Your task to perform on an android device: Show me recent news Image 0: 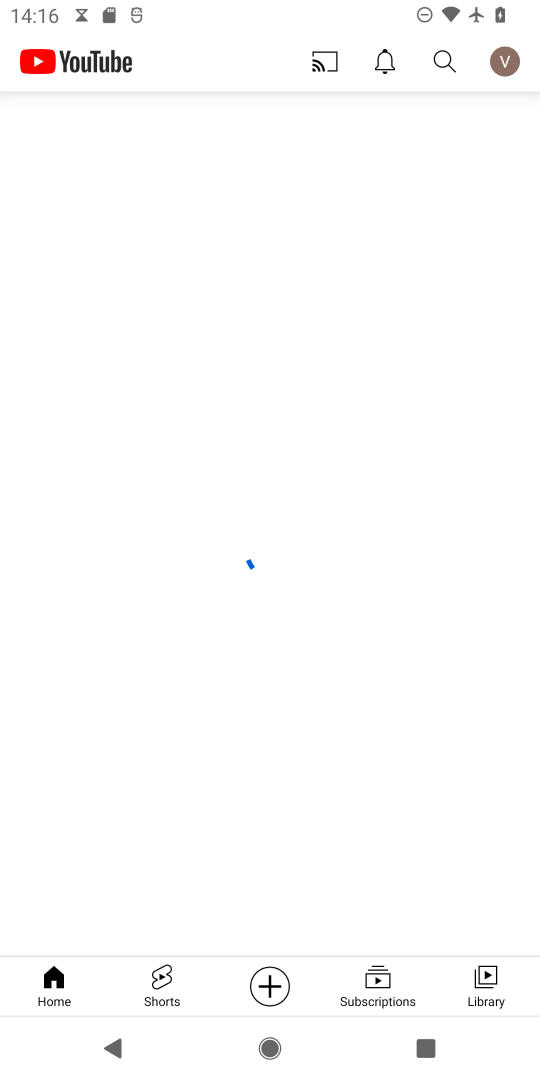
Step 0: press home button
Your task to perform on an android device: Show me recent news Image 1: 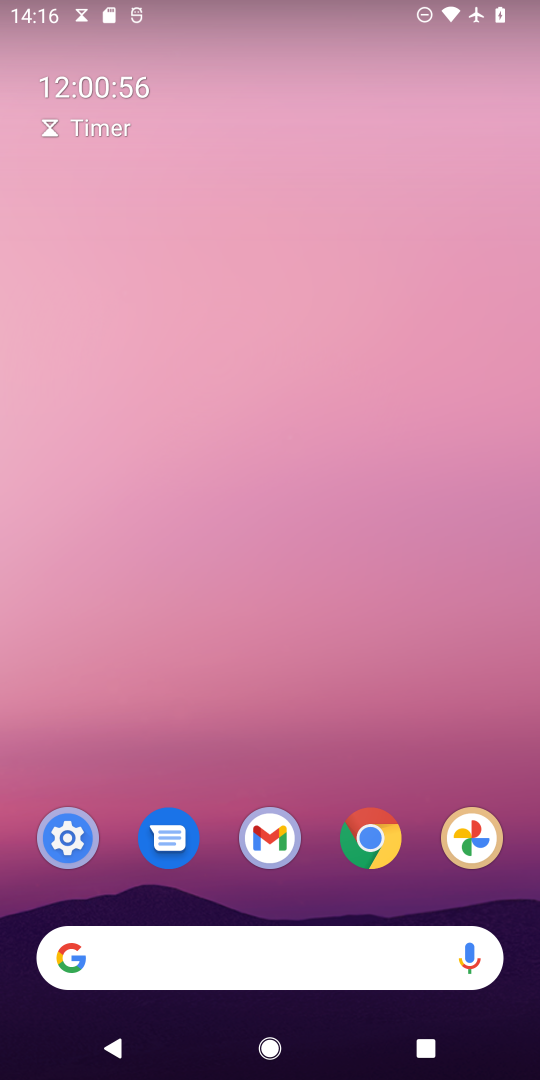
Step 1: click (60, 960)
Your task to perform on an android device: Show me recent news Image 2: 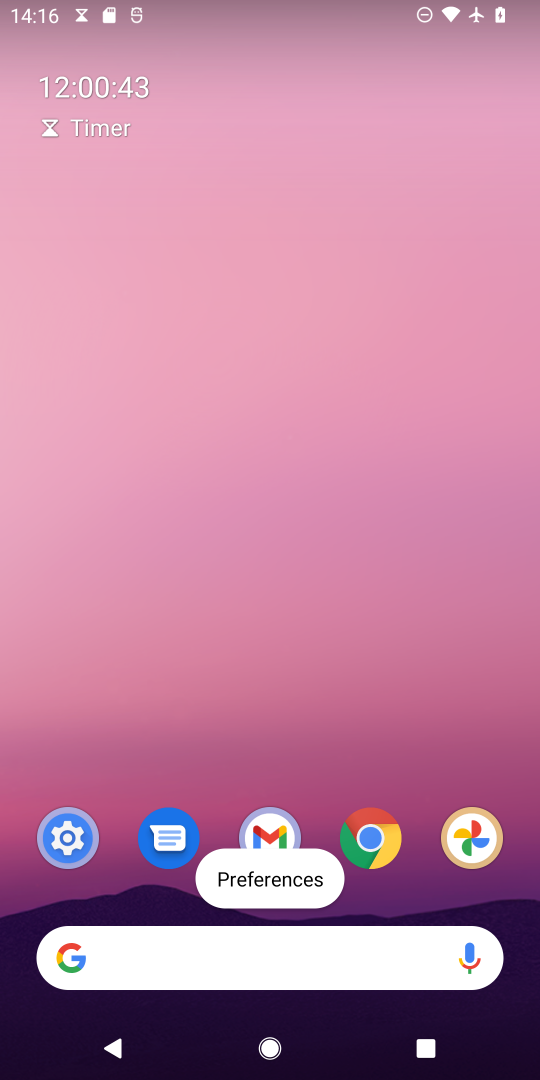
Step 2: click (58, 956)
Your task to perform on an android device: Show me recent news Image 3: 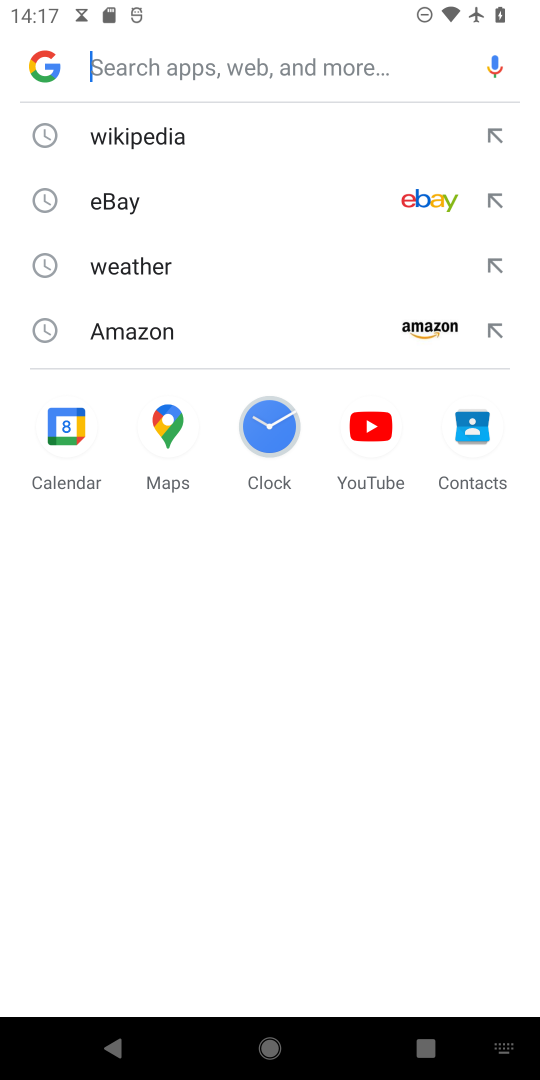
Step 3: type " recent news"
Your task to perform on an android device: Show me recent news Image 4: 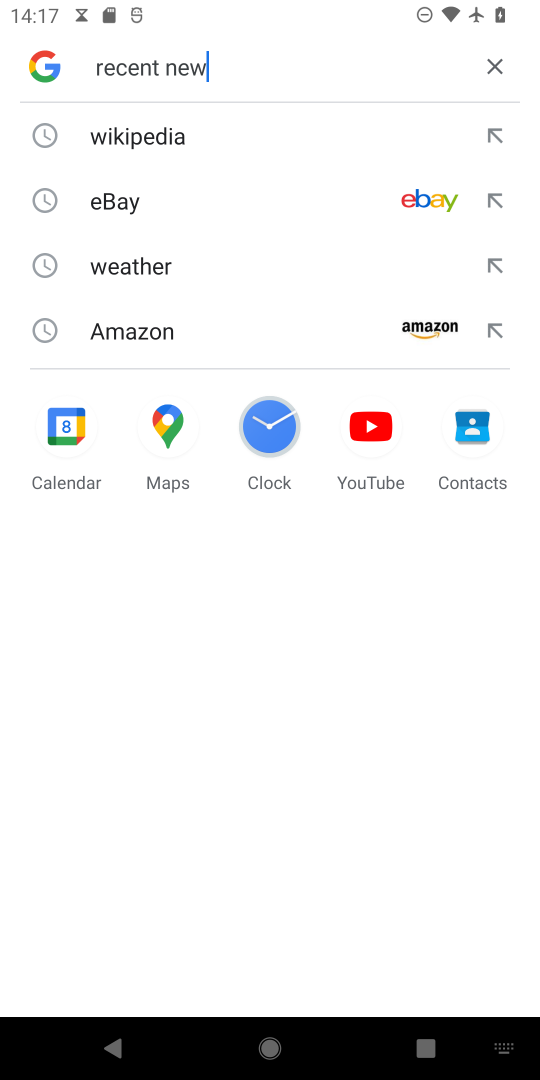
Step 4: press enter
Your task to perform on an android device: Show me recent news Image 5: 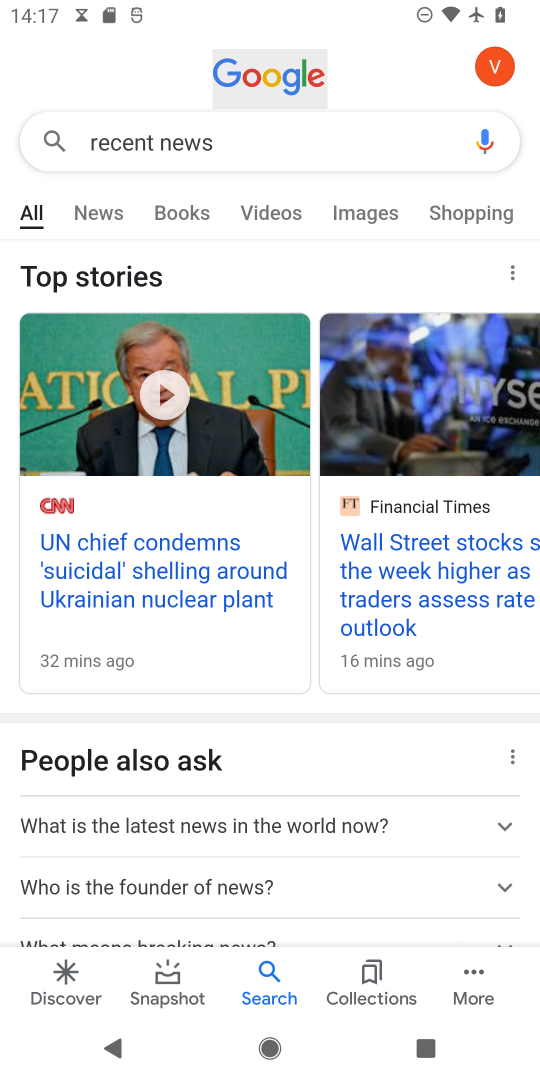
Step 5: task complete